Your task to perform on an android device: open wifi settings Image 0: 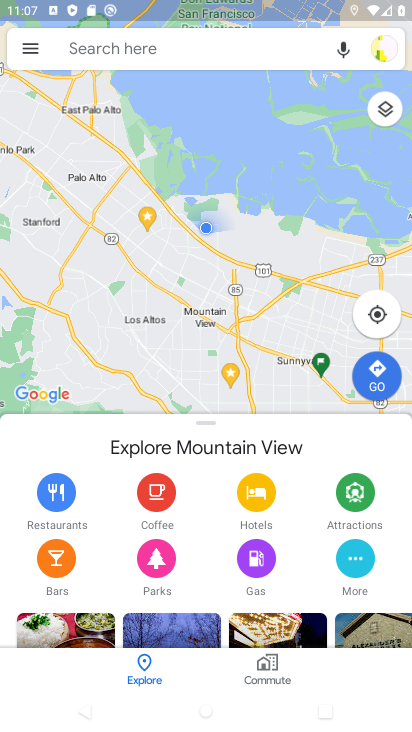
Step 0: press home button
Your task to perform on an android device: open wifi settings Image 1: 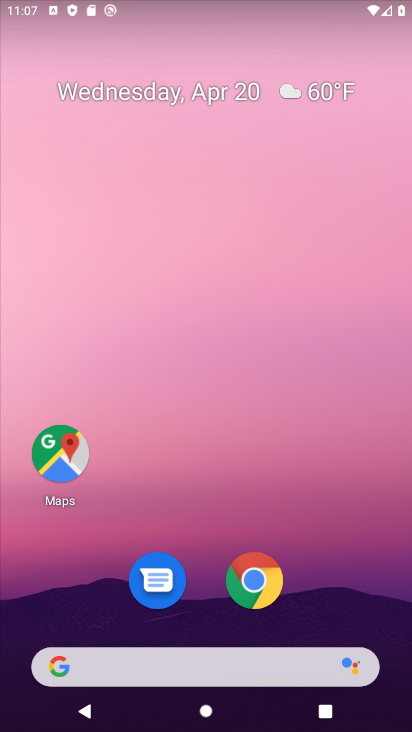
Step 1: drag from (194, 659) to (158, 4)
Your task to perform on an android device: open wifi settings Image 2: 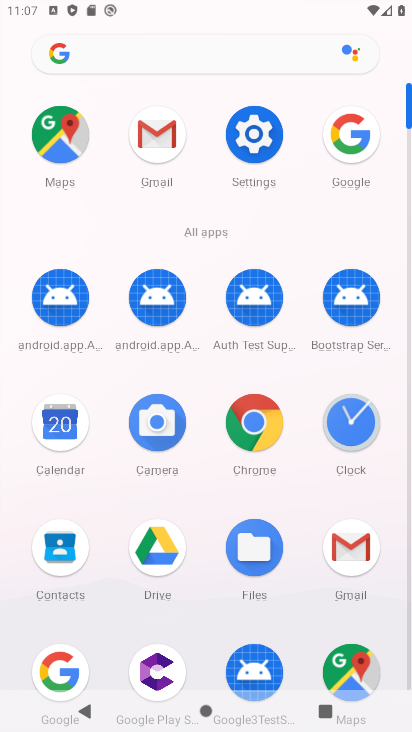
Step 2: click (246, 131)
Your task to perform on an android device: open wifi settings Image 3: 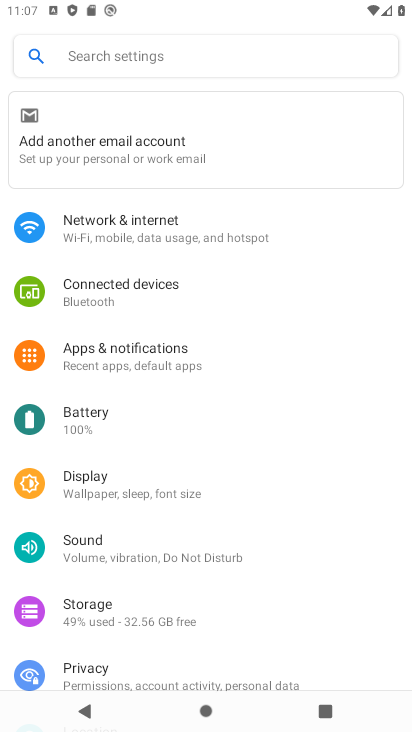
Step 3: click (135, 221)
Your task to perform on an android device: open wifi settings Image 4: 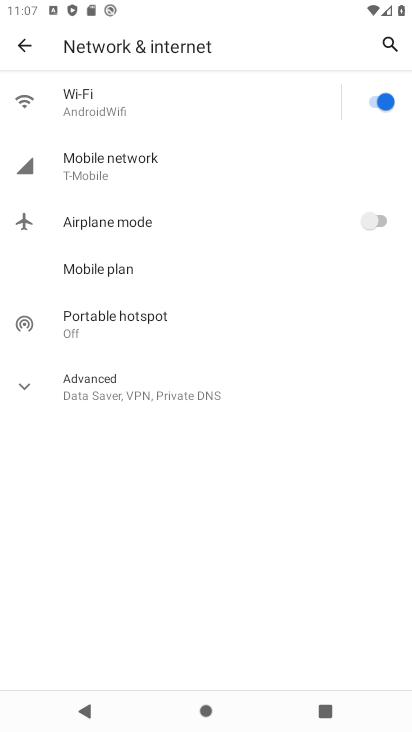
Step 4: click (95, 100)
Your task to perform on an android device: open wifi settings Image 5: 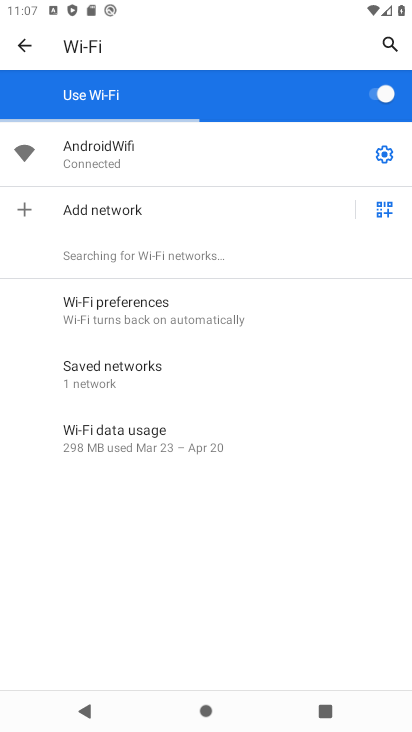
Step 5: task complete